Your task to perform on an android device: Open settings on Google Maps Image 0: 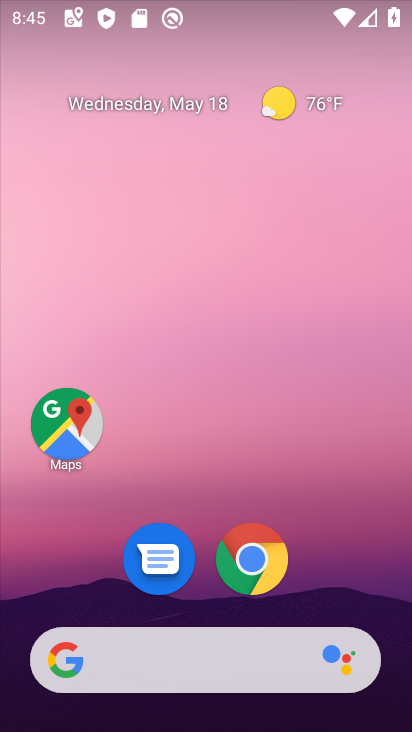
Step 0: click (68, 426)
Your task to perform on an android device: Open settings on Google Maps Image 1: 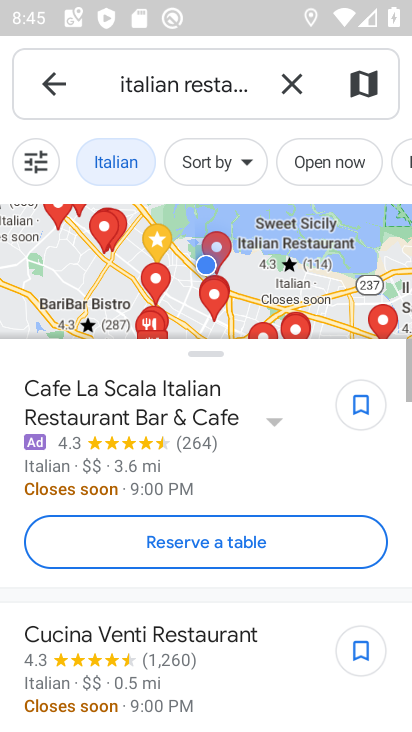
Step 1: click (301, 85)
Your task to perform on an android device: Open settings on Google Maps Image 2: 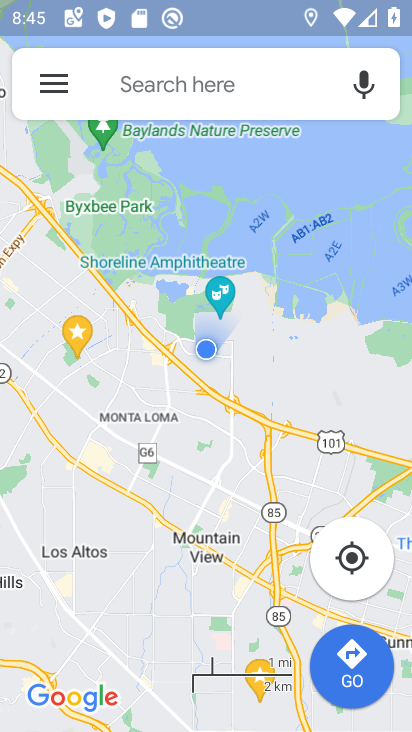
Step 2: click (49, 86)
Your task to perform on an android device: Open settings on Google Maps Image 3: 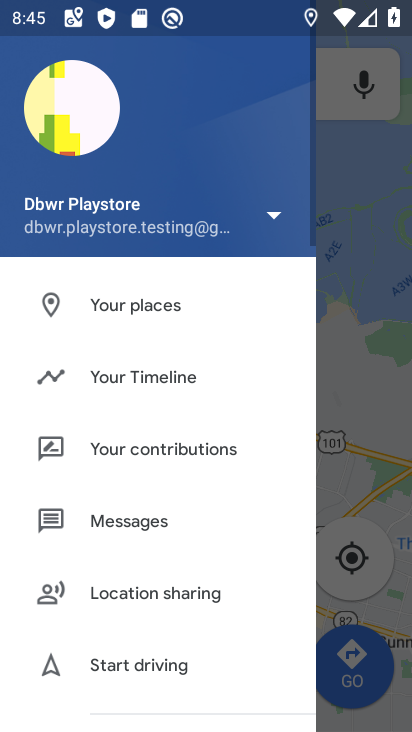
Step 3: drag from (185, 626) to (215, 94)
Your task to perform on an android device: Open settings on Google Maps Image 4: 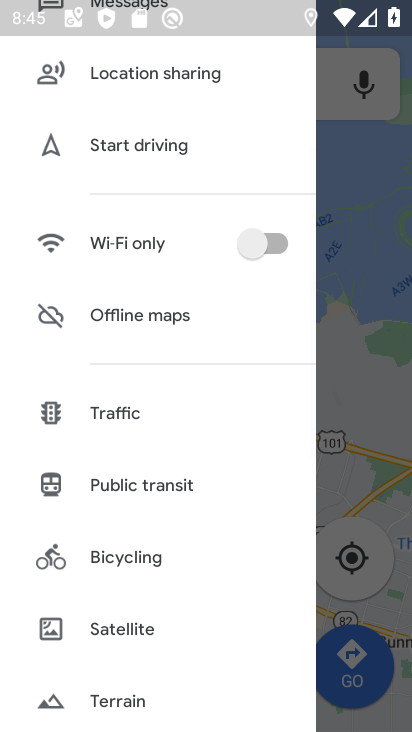
Step 4: drag from (147, 675) to (182, 68)
Your task to perform on an android device: Open settings on Google Maps Image 5: 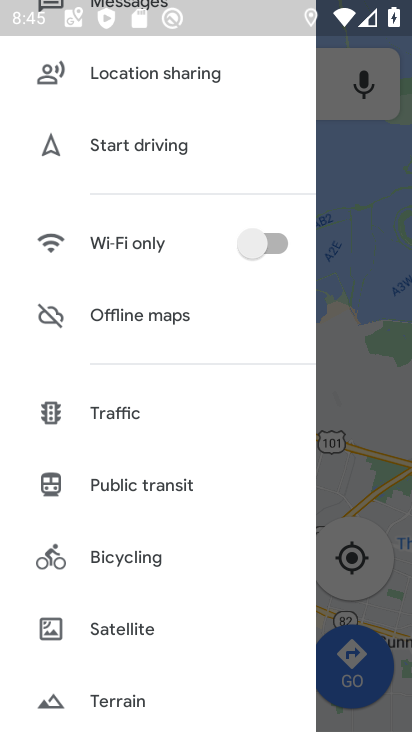
Step 5: drag from (172, 590) to (206, 135)
Your task to perform on an android device: Open settings on Google Maps Image 6: 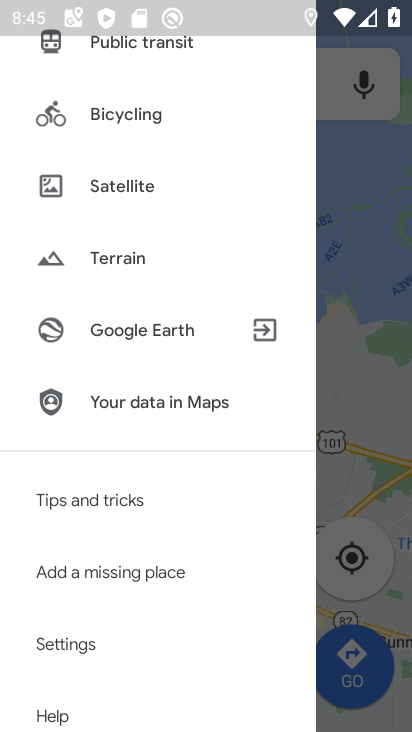
Step 6: click (81, 646)
Your task to perform on an android device: Open settings on Google Maps Image 7: 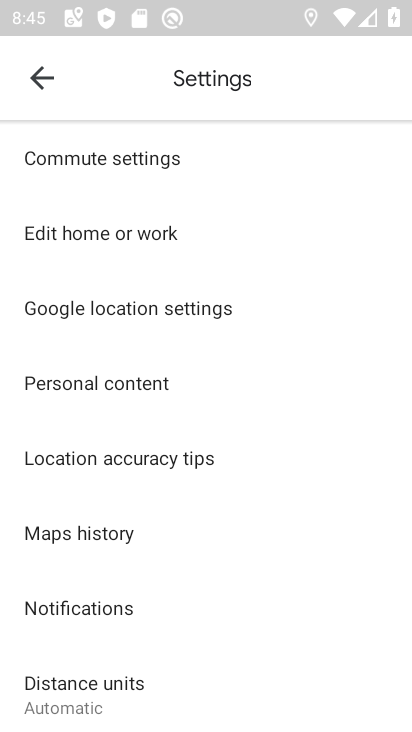
Step 7: task complete